Your task to perform on an android device: open wifi settings Image 0: 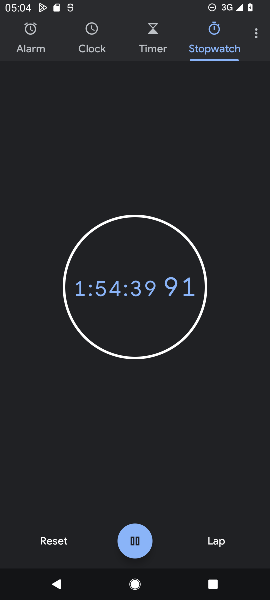
Step 0: press home button
Your task to perform on an android device: open wifi settings Image 1: 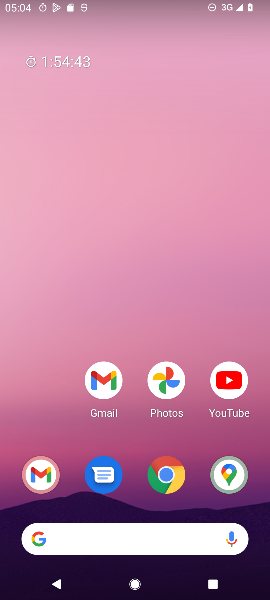
Step 1: drag from (66, 444) to (56, 275)
Your task to perform on an android device: open wifi settings Image 2: 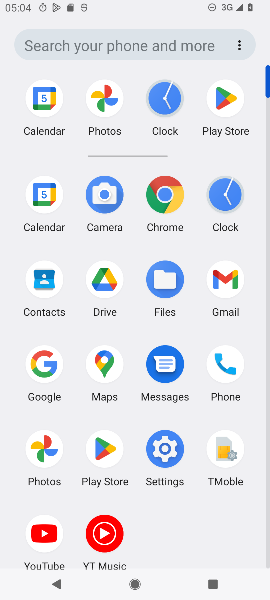
Step 2: click (164, 455)
Your task to perform on an android device: open wifi settings Image 3: 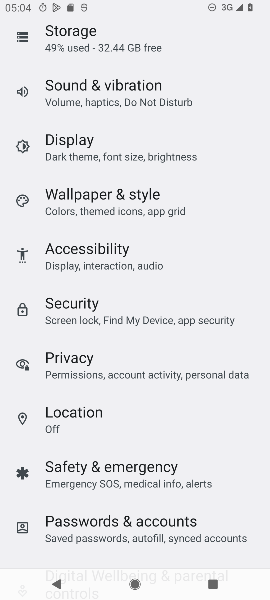
Step 3: drag from (219, 206) to (223, 273)
Your task to perform on an android device: open wifi settings Image 4: 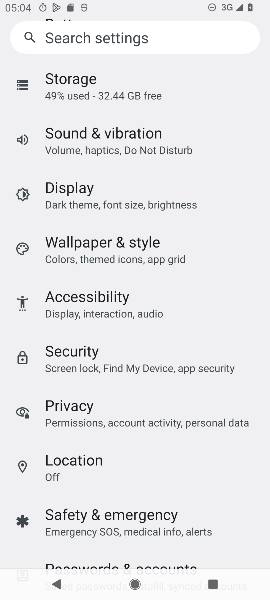
Step 4: drag from (223, 203) to (230, 304)
Your task to perform on an android device: open wifi settings Image 5: 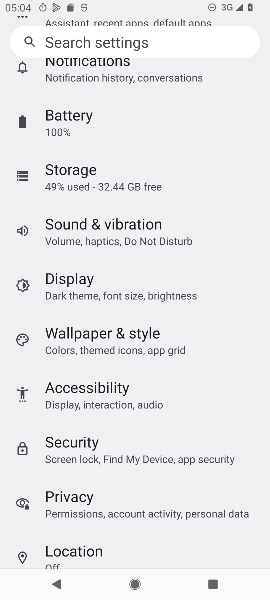
Step 5: drag from (228, 175) to (231, 311)
Your task to perform on an android device: open wifi settings Image 6: 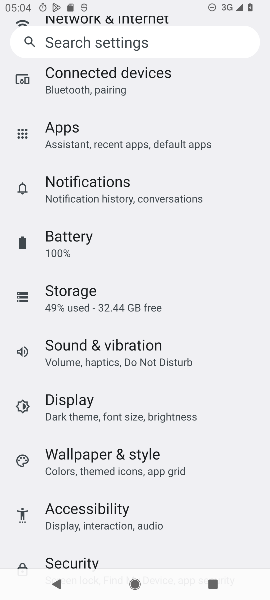
Step 6: drag from (227, 132) to (226, 231)
Your task to perform on an android device: open wifi settings Image 7: 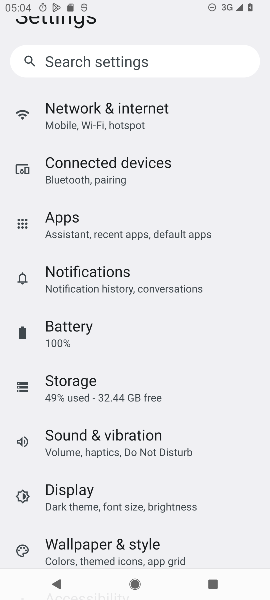
Step 7: drag from (223, 139) to (224, 293)
Your task to perform on an android device: open wifi settings Image 8: 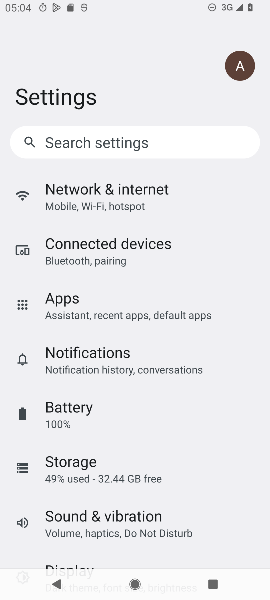
Step 8: click (150, 196)
Your task to perform on an android device: open wifi settings Image 9: 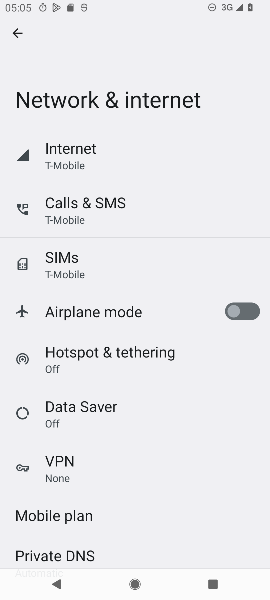
Step 9: click (76, 150)
Your task to perform on an android device: open wifi settings Image 10: 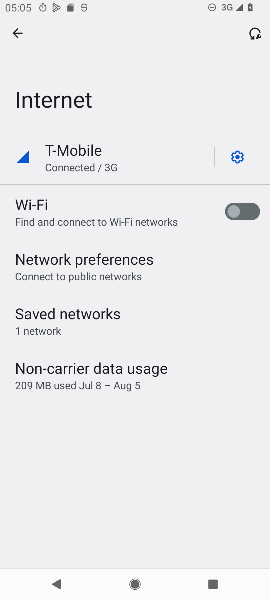
Step 10: task complete